Your task to perform on an android device: When is my next meeting? Image 0: 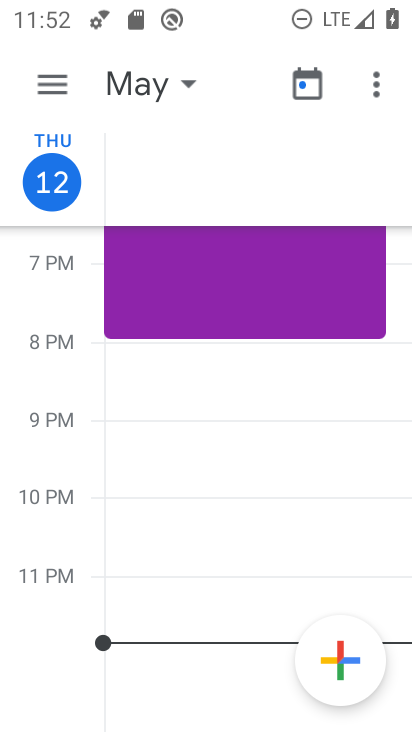
Step 0: press home button
Your task to perform on an android device: When is my next meeting? Image 1: 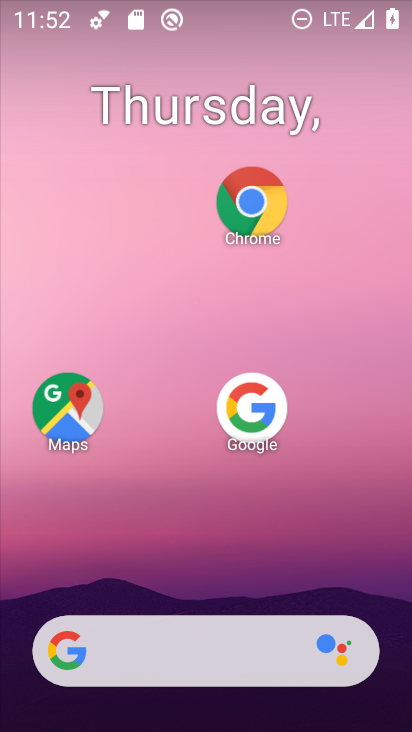
Step 1: drag from (240, 607) to (113, 10)
Your task to perform on an android device: When is my next meeting? Image 2: 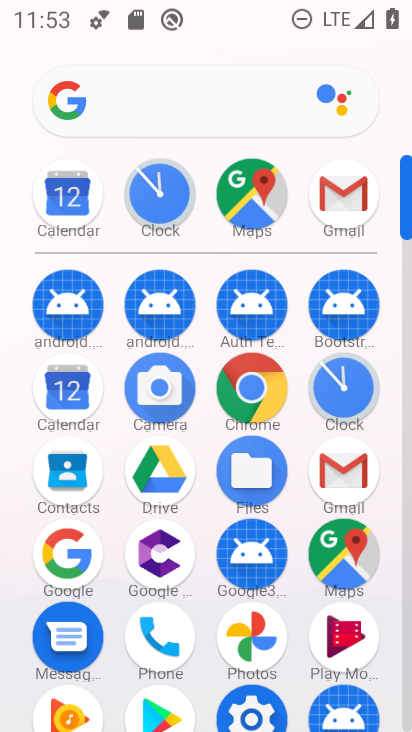
Step 2: click (76, 402)
Your task to perform on an android device: When is my next meeting? Image 3: 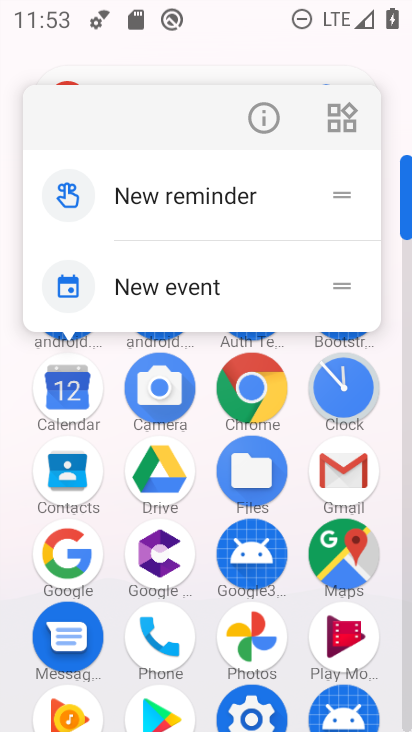
Step 3: click (69, 379)
Your task to perform on an android device: When is my next meeting? Image 4: 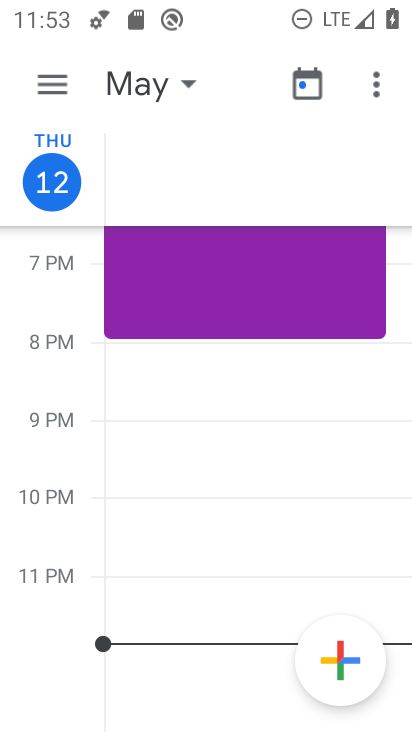
Step 4: click (305, 72)
Your task to perform on an android device: When is my next meeting? Image 5: 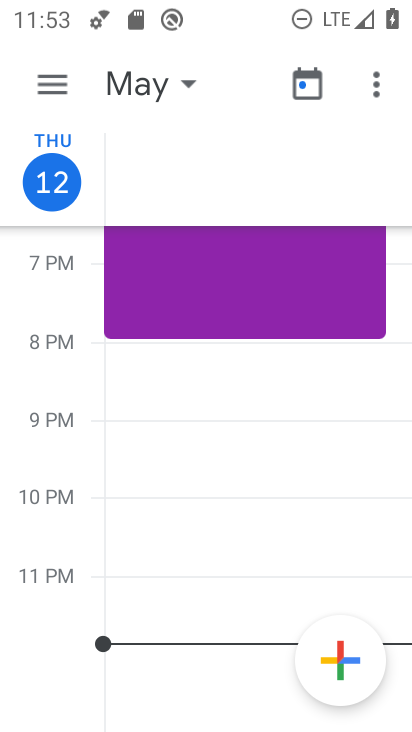
Step 5: click (312, 78)
Your task to perform on an android device: When is my next meeting? Image 6: 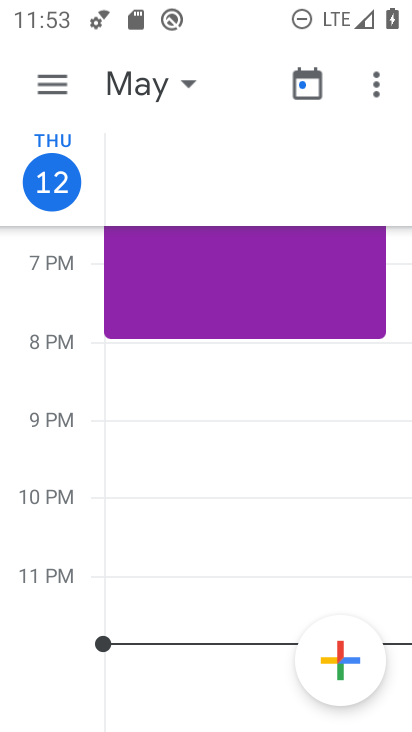
Step 6: click (307, 83)
Your task to perform on an android device: When is my next meeting? Image 7: 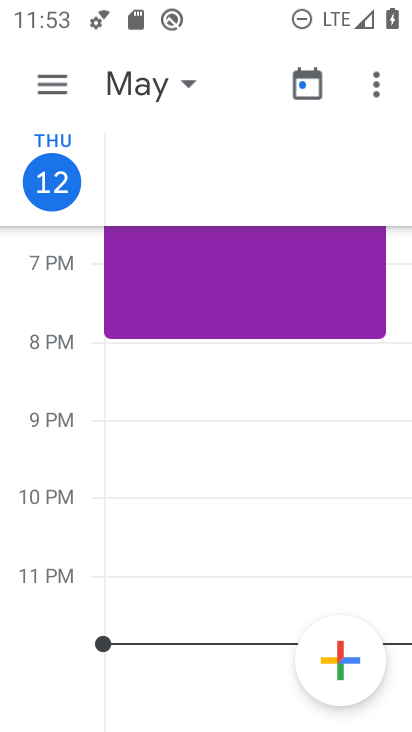
Step 7: task complete